Your task to perform on an android device: toggle data saver in the chrome app Image 0: 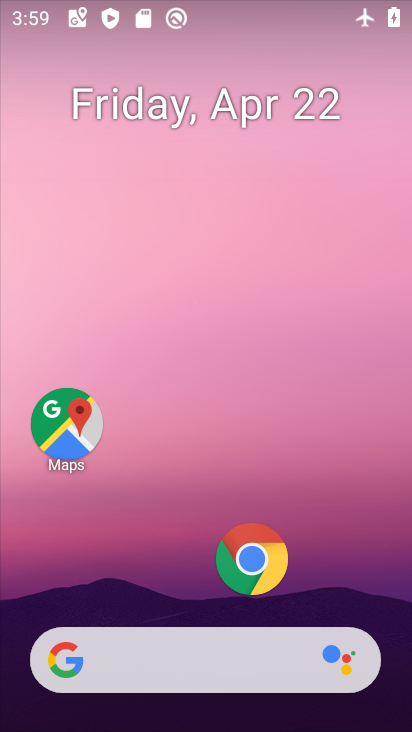
Step 0: click (250, 549)
Your task to perform on an android device: toggle data saver in the chrome app Image 1: 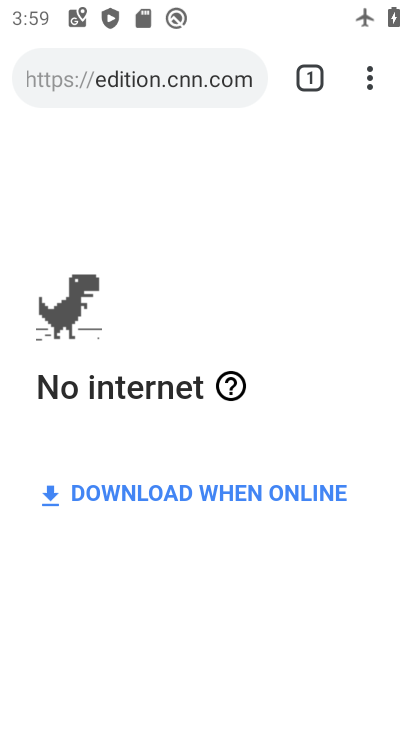
Step 1: click (355, 93)
Your task to perform on an android device: toggle data saver in the chrome app Image 2: 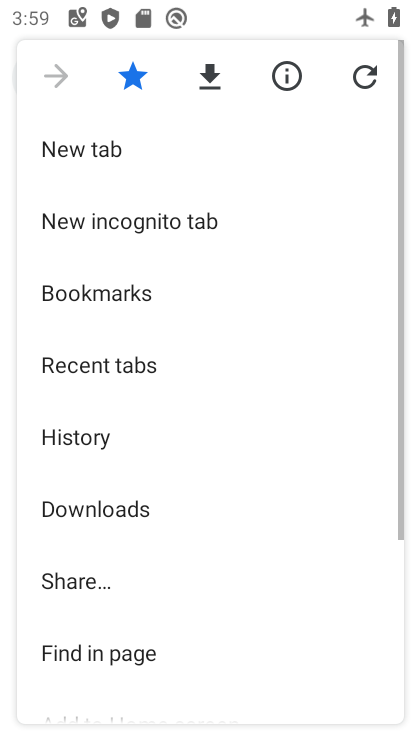
Step 2: drag from (91, 542) to (188, 98)
Your task to perform on an android device: toggle data saver in the chrome app Image 3: 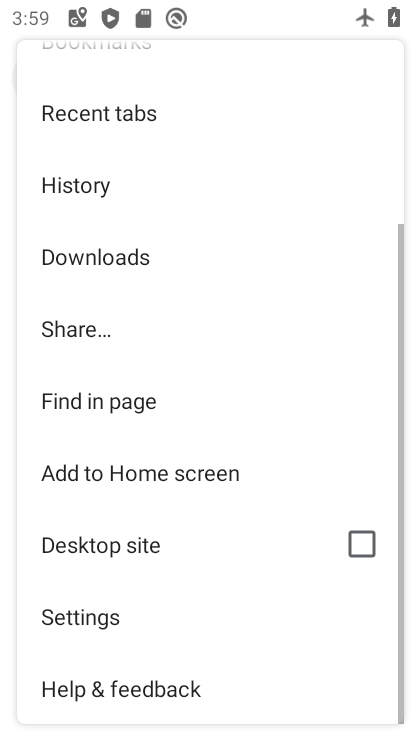
Step 3: click (68, 621)
Your task to perform on an android device: toggle data saver in the chrome app Image 4: 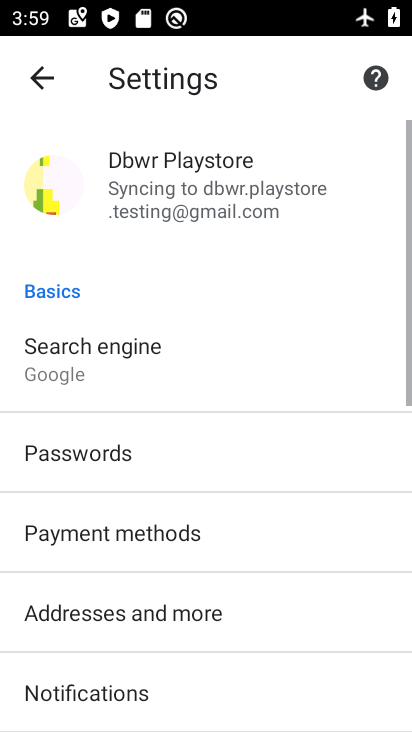
Step 4: drag from (107, 530) to (164, 180)
Your task to perform on an android device: toggle data saver in the chrome app Image 5: 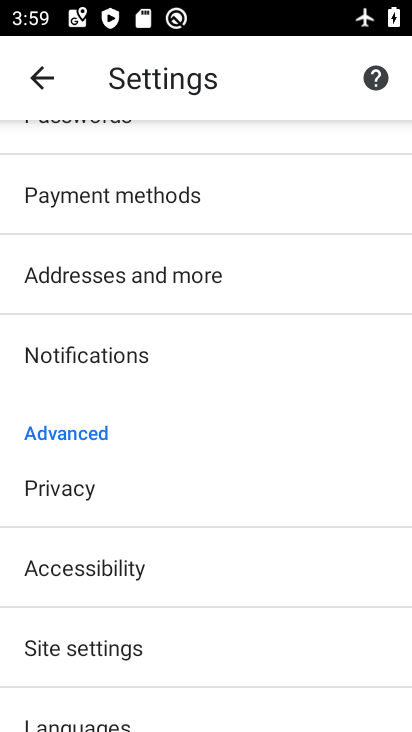
Step 5: drag from (68, 624) to (114, 415)
Your task to perform on an android device: toggle data saver in the chrome app Image 6: 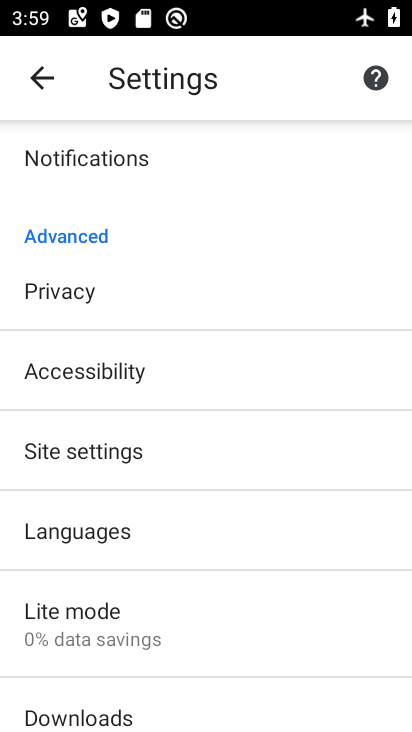
Step 6: click (65, 624)
Your task to perform on an android device: toggle data saver in the chrome app Image 7: 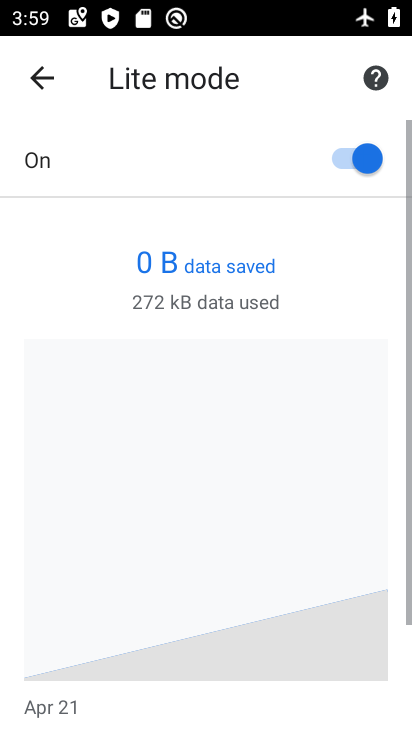
Step 7: click (329, 152)
Your task to perform on an android device: toggle data saver in the chrome app Image 8: 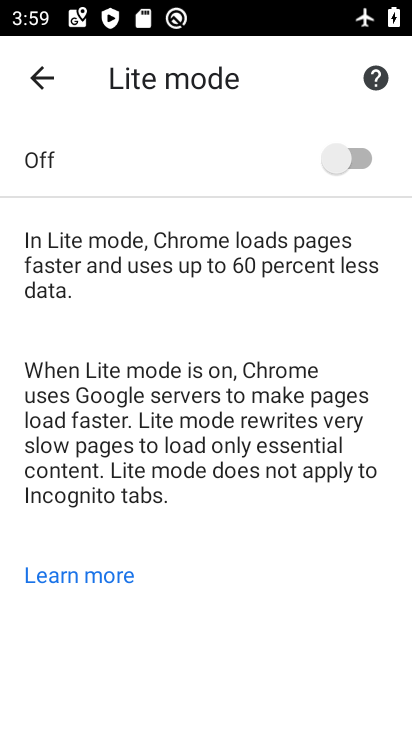
Step 8: task complete